Your task to perform on an android device: create a new album in the google photos Image 0: 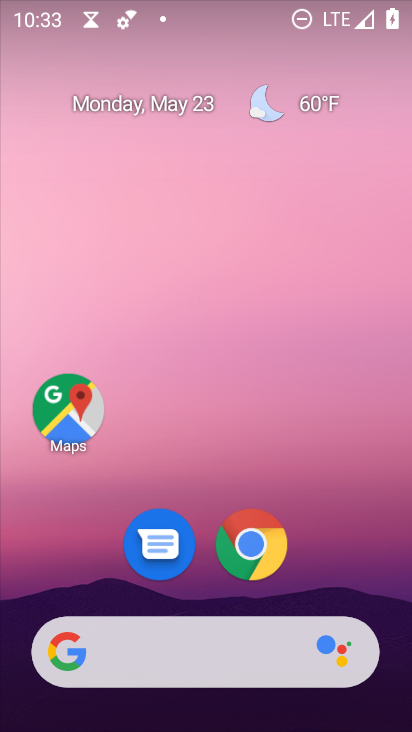
Step 0: drag from (324, 561) to (187, 166)
Your task to perform on an android device: create a new album in the google photos Image 1: 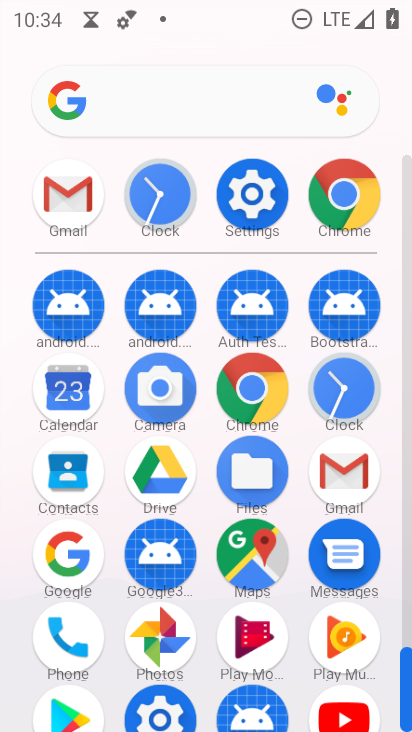
Step 1: click (165, 643)
Your task to perform on an android device: create a new album in the google photos Image 2: 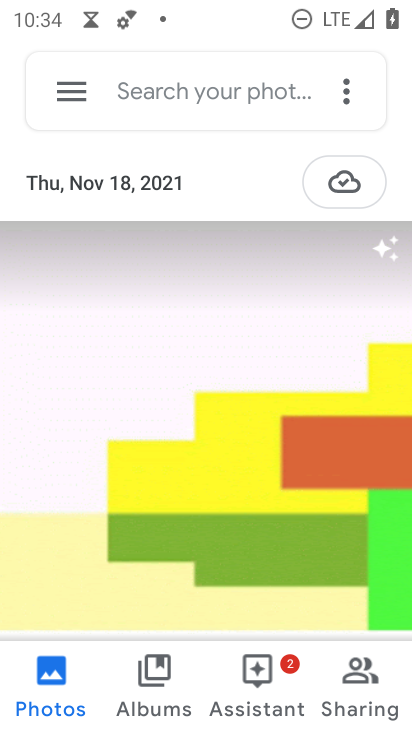
Step 2: click (160, 689)
Your task to perform on an android device: create a new album in the google photos Image 3: 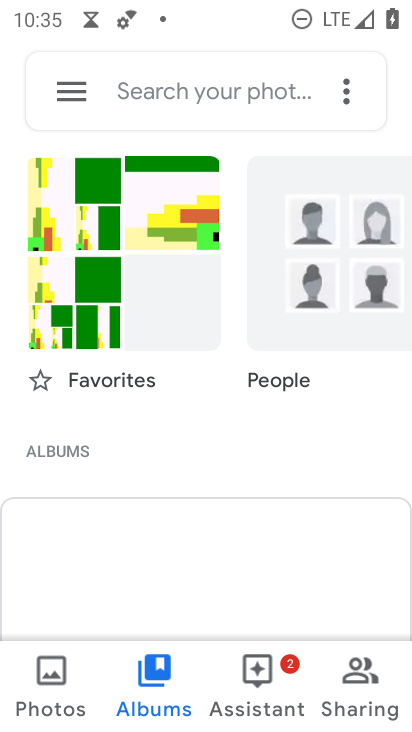
Step 3: drag from (184, 596) to (158, 287)
Your task to perform on an android device: create a new album in the google photos Image 4: 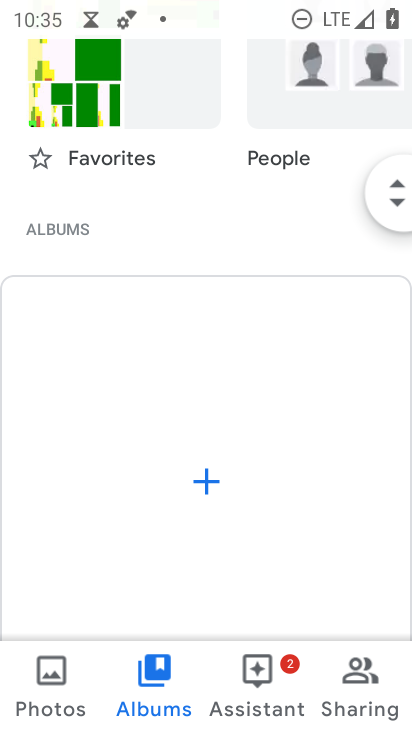
Step 4: click (158, 268)
Your task to perform on an android device: create a new album in the google photos Image 5: 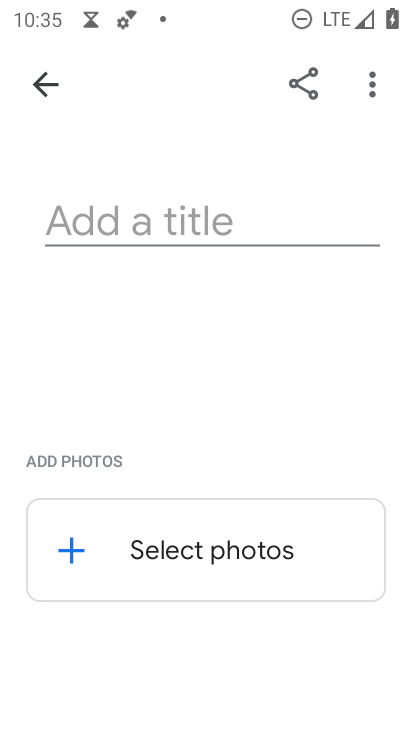
Step 5: click (140, 231)
Your task to perform on an android device: create a new album in the google photos Image 6: 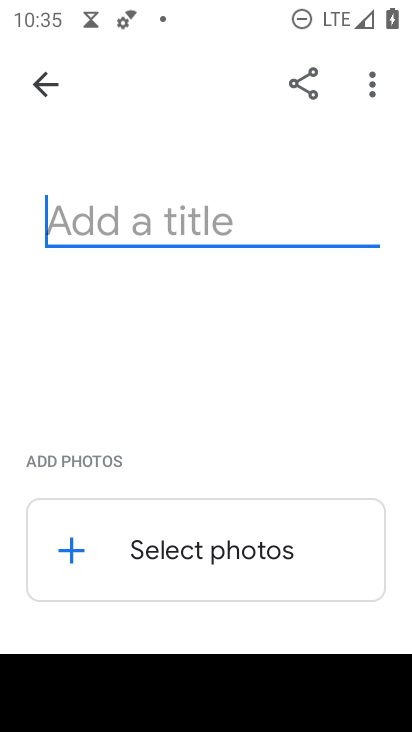
Step 6: type "belloi"
Your task to perform on an android device: create a new album in the google photos Image 7: 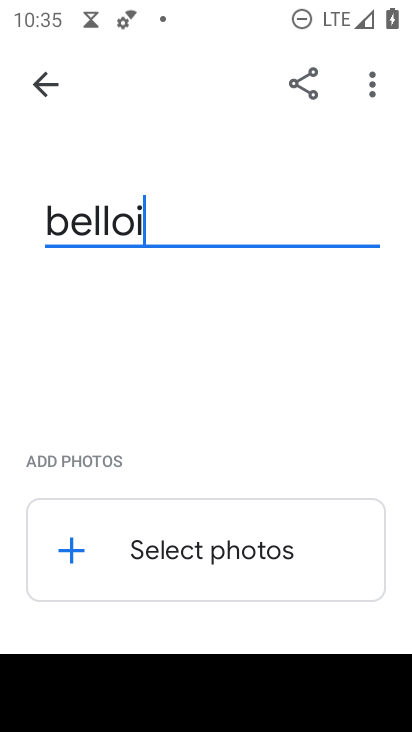
Step 7: click (174, 557)
Your task to perform on an android device: create a new album in the google photos Image 8: 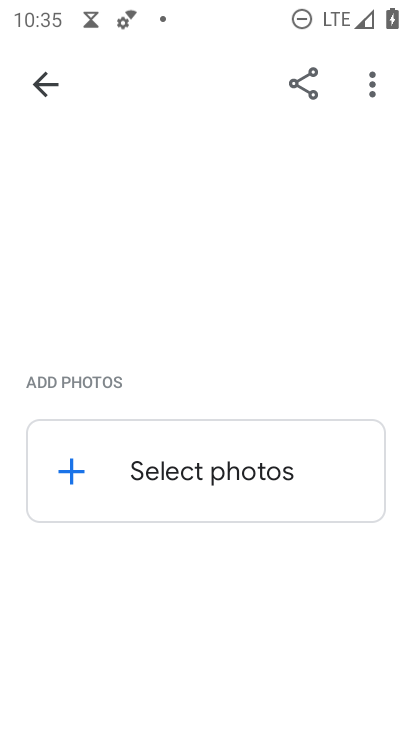
Step 8: click (72, 473)
Your task to perform on an android device: create a new album in the google photos Image 9: 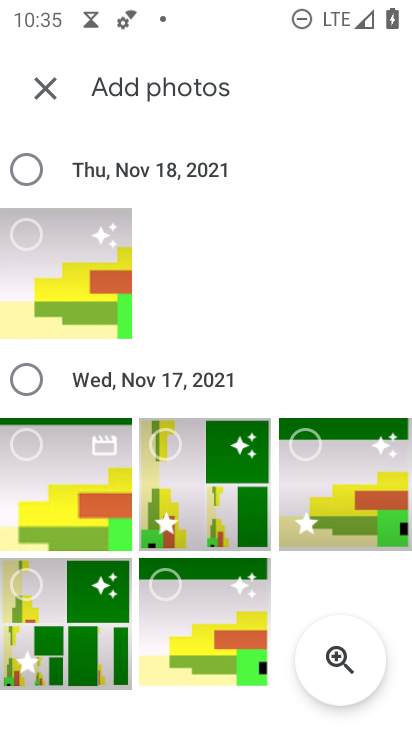
Step 9: click (28, 238)
Your task to perform on an android device: create a new album in the google photos Image 10: 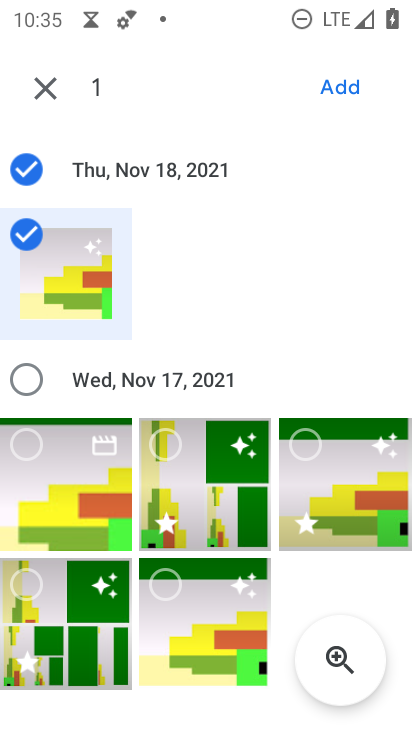
Step 10: click (22, 379)
Your task to perform on an android device: create a new album in the google photos Image 11: 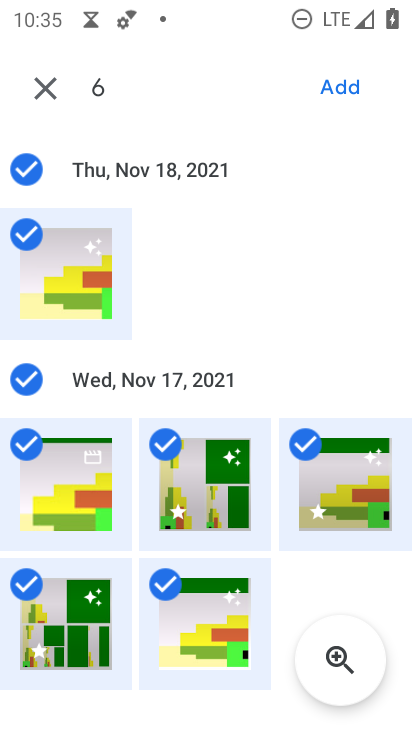
Step 11: click (352, 88)
Your task to perform on an android device: create a new album in the google photos Image 12: 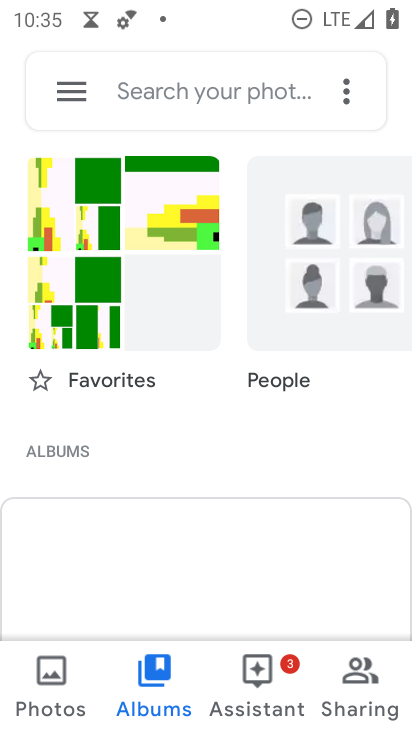
Step 12: drag from (217, 568) to (200, 360)
Your task to perform on an android device: create a new album in the google photos Image 13: 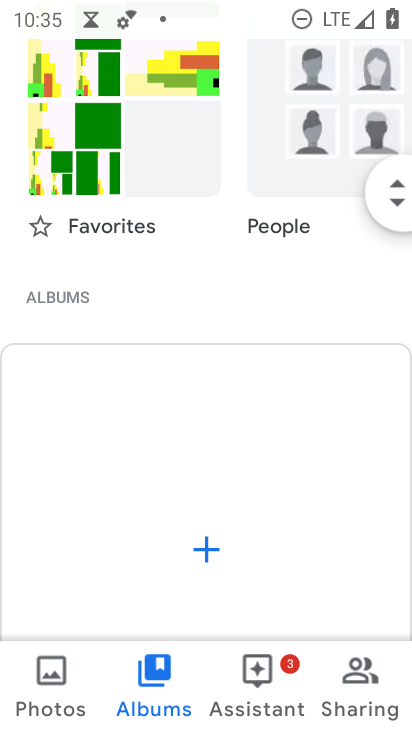
Step 13: drag from (194, 297) to (185, 227)
Your task to perform on an android device: create a new album in the google photos Image 14: 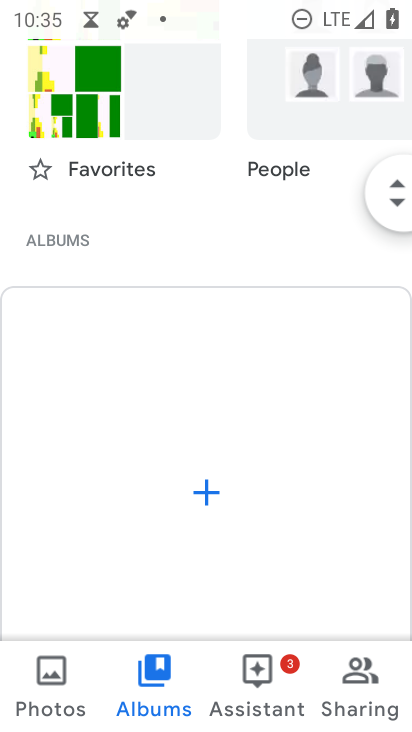
Step 14: click (209, 485)
Your task to perform on an android device: create a new album in the google photos Image 15: 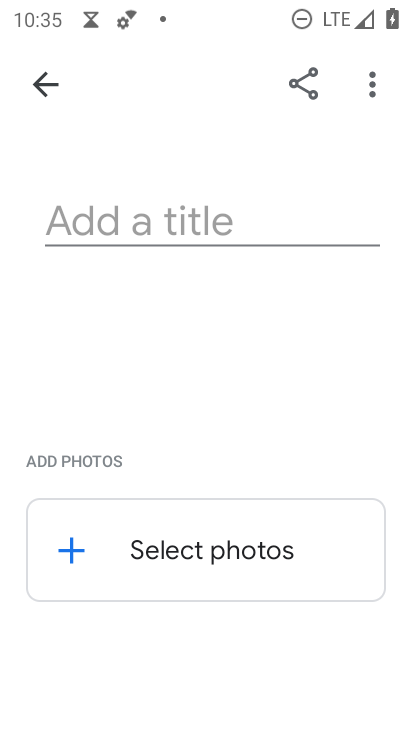
Step 15: click (88, 221)
Your task to perform on an android device: create a new album in the google photos Image 16: 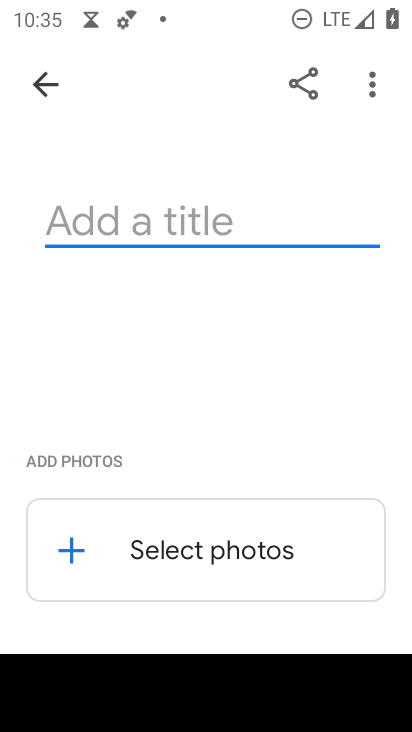
Step 16: type "bella"
Your task to perform on an android device: create a new album in the google photos Image 17: 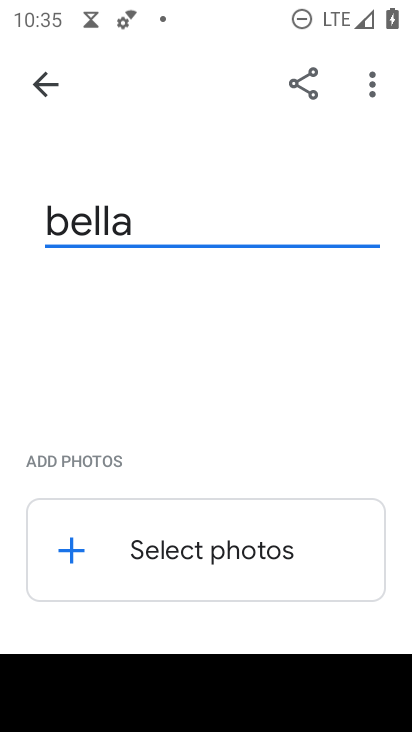
Step 17: click (167, 542)
Your task to perform on an android device: create a new album in the google photos Image 18: 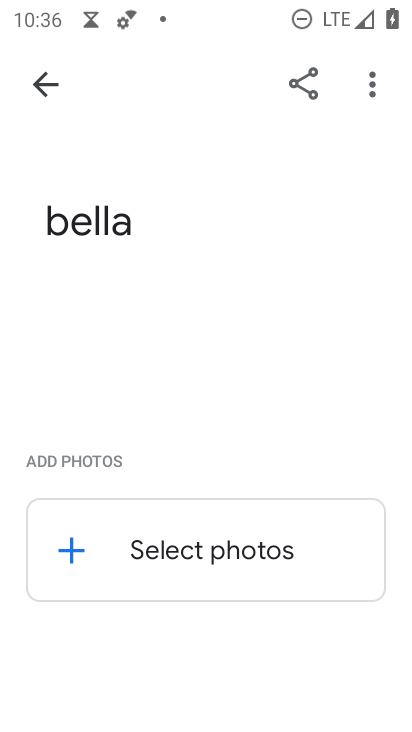
Step 18: click (172, 555)
Your task to perform on an android device: create a new album in the google photos Image 19: 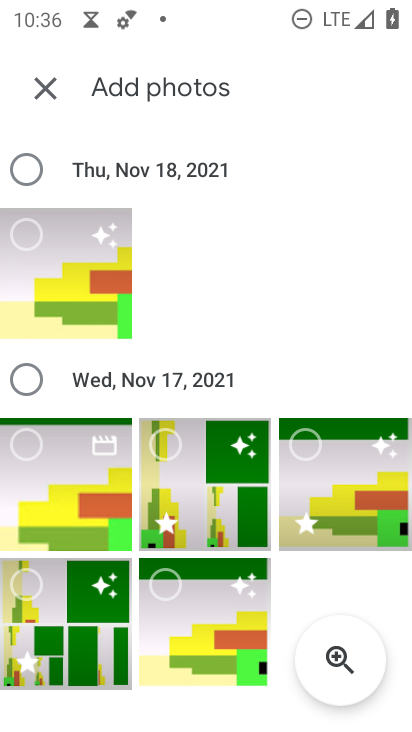
Step 19: click (26, 168)
Your task to perform on an android device: create a new album in the google photos Image 20: 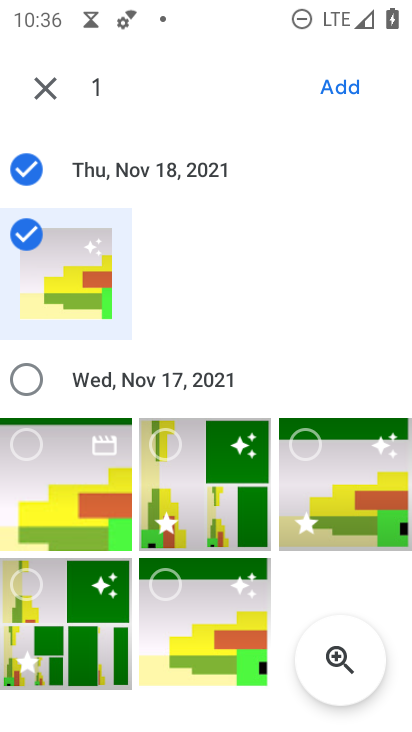
Step 20: click (31, 379)
Your task to perform on an android device: create a new album in the google photos Image 21: 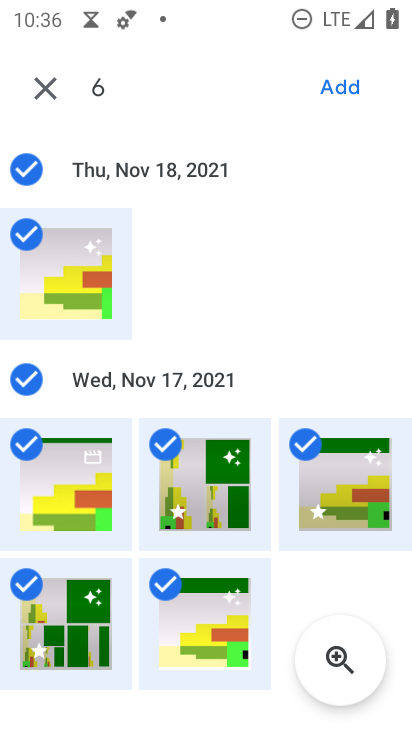
Step 21: click (349, 79)
Your task to perform on an android device: create a new album in the google photos Image 22: 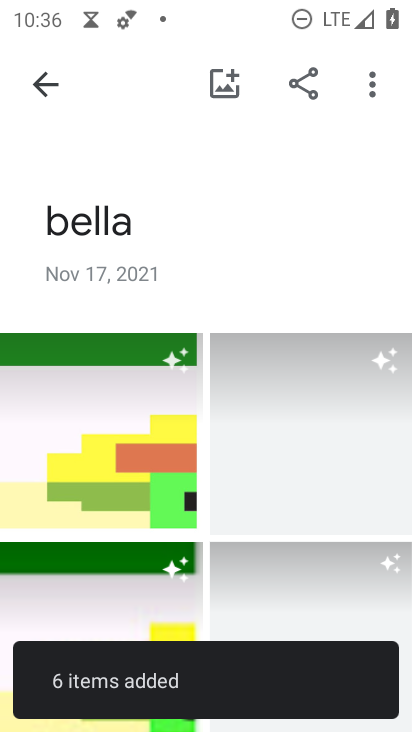
Step 22: task complete